Your task to perform on an android device: turn on translation in the chrome app Image 0: 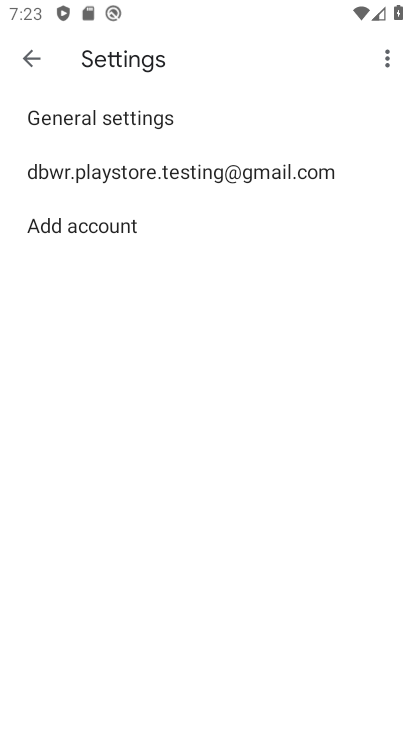
Step 0: press back button
Your task to perform on an android device: turn on translation in the chrome app Image 1: 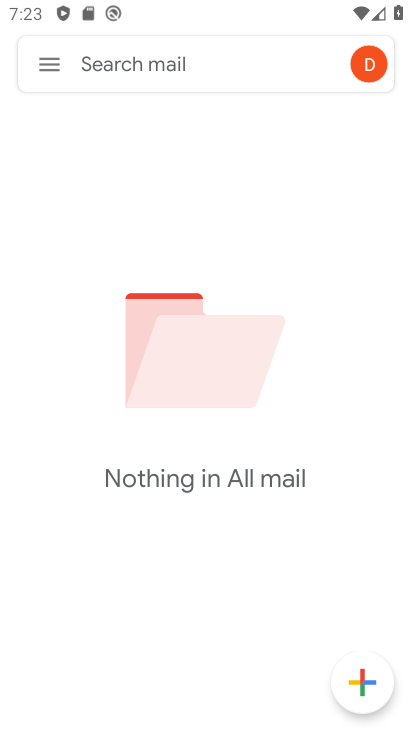
Step 1: press back button
Your task to perform on an android device: turn on translation in the chrome app Image 2: 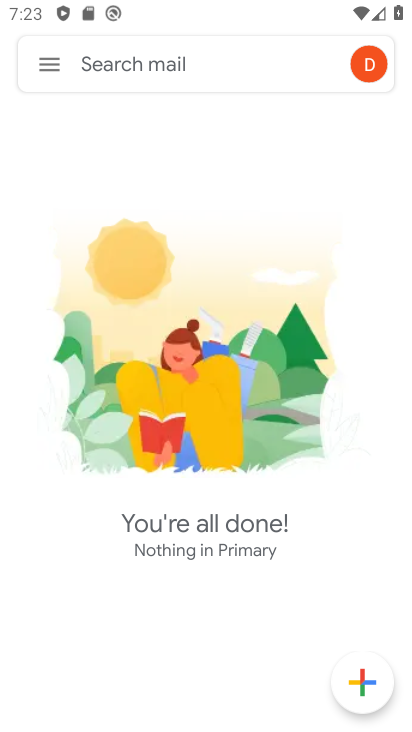
Step 2: press back button
Your task to perform on an android device: turn on translation in the chrome app Image 3: 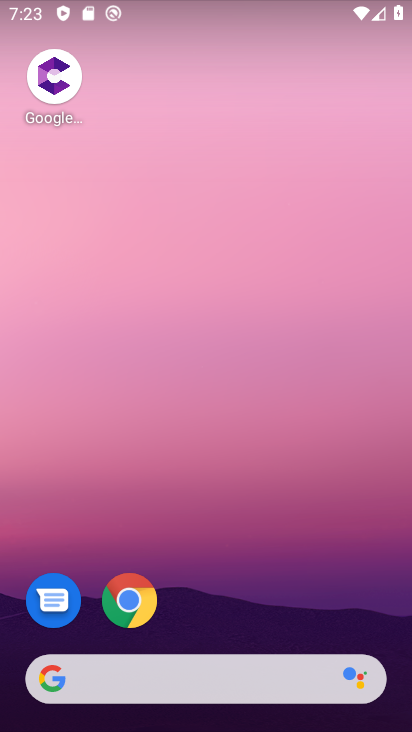
Step 3: click (123, 594)
Your task to perform on an android device: turn on translation in the chrome app Image 4: 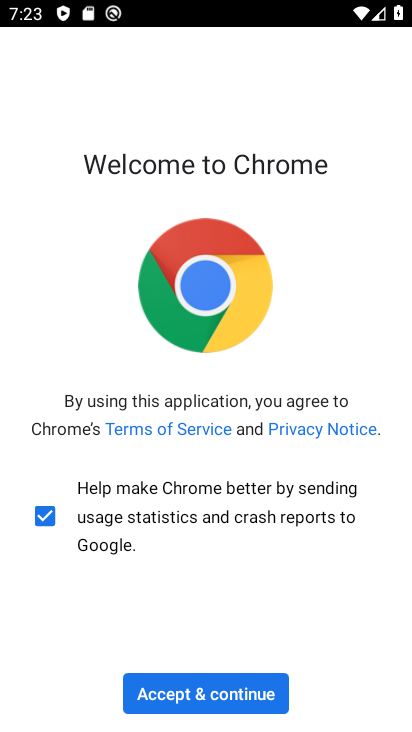
Step 4: click (171, 683)
Your task to perform on an android device: turn on translation in the chrome app Image 5: 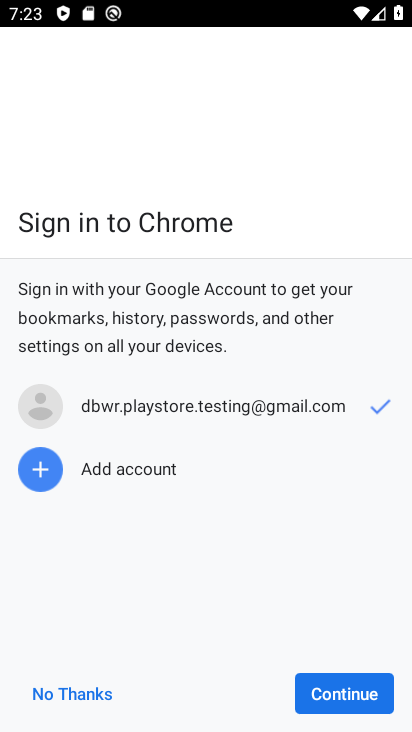
Step 5: click (370, 701)
Your task to perform on an android device: turn on translation in the chrome app Image 6: 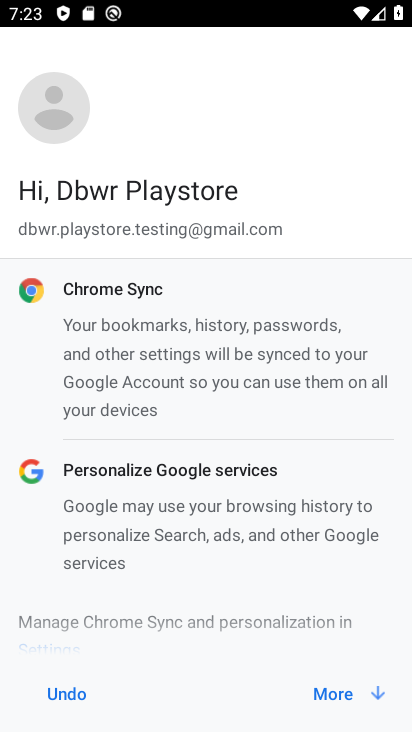
Step 6: click (333, 698)
Your task to perform on an android device: turn on translation in the chrome app Image 7: 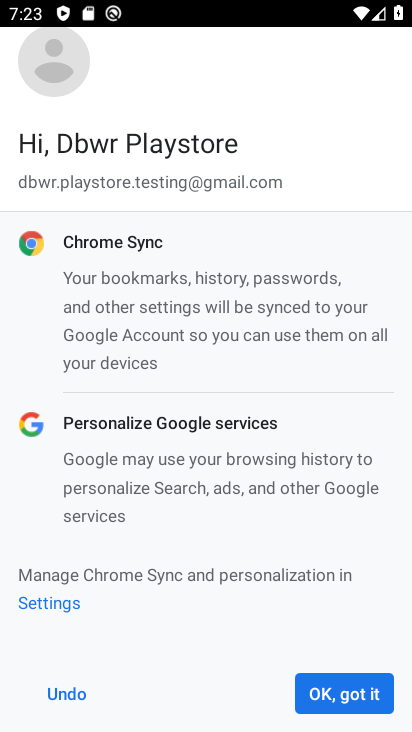
Step 7: click (333, 698)
Your task to perform on an android device: turn on translation in the chrome app Image 8: 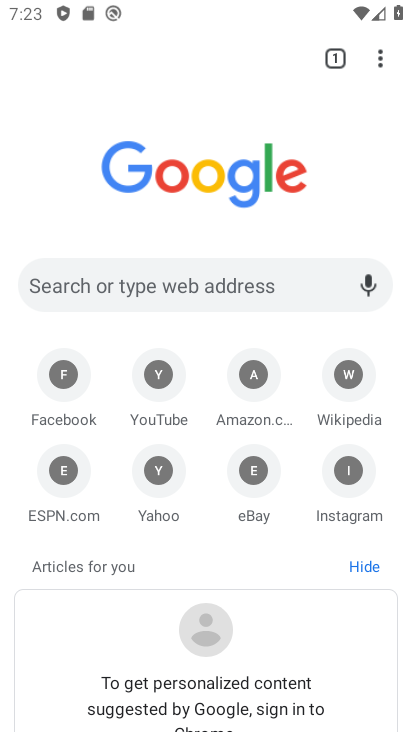
Step 8: drag from (381, 54) to (187, 487)
Your task to perform on an android device: turn on translation in the chrome app Image 9: 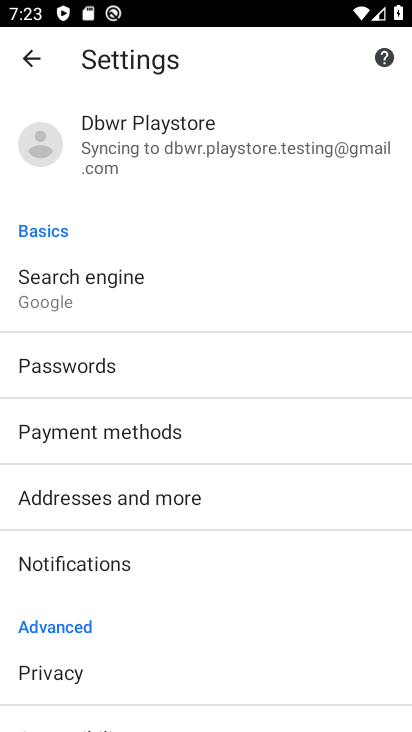
Step 9: drag from (123, 675) to (239, 198)
Your task to perform on an android device: turn on translation in the chrome app Image 10: 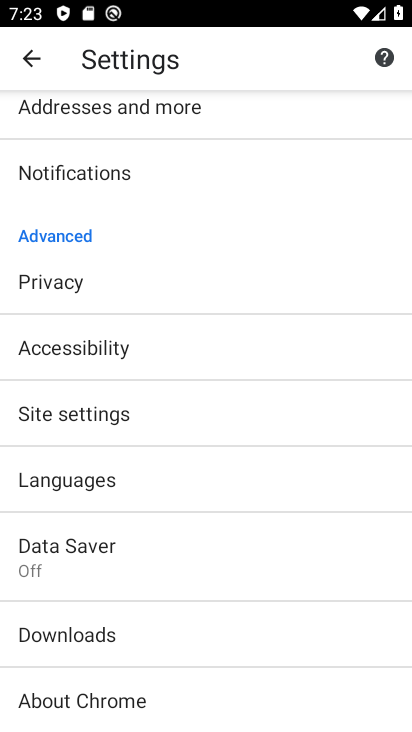
Step 10: click (117, 483)
Your task to perform on an android device: turn on translation in the chrome app Image 11: 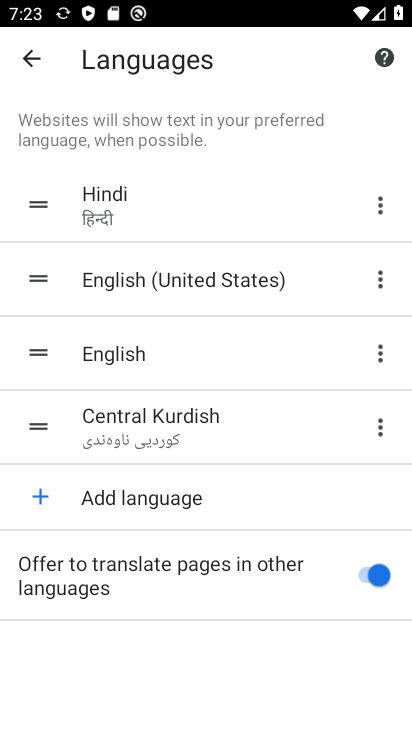
Step 11: task complete